Your task to perform on an android device: empty trash in the gmail app Image 0: 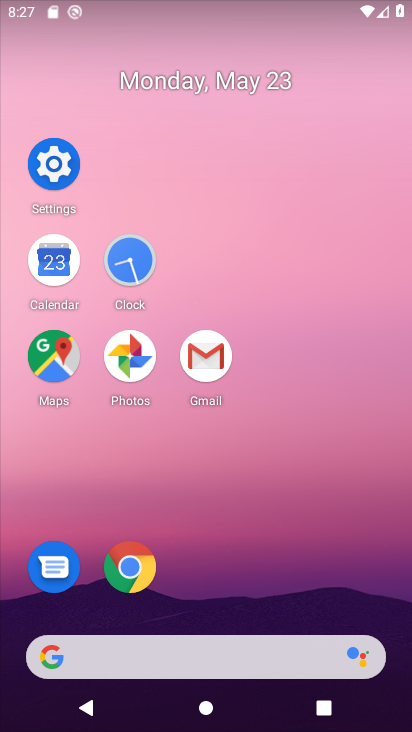
Step 0: click (230, 372)
Your task to perform on an android device: empty trash in the gmail app Image 1: 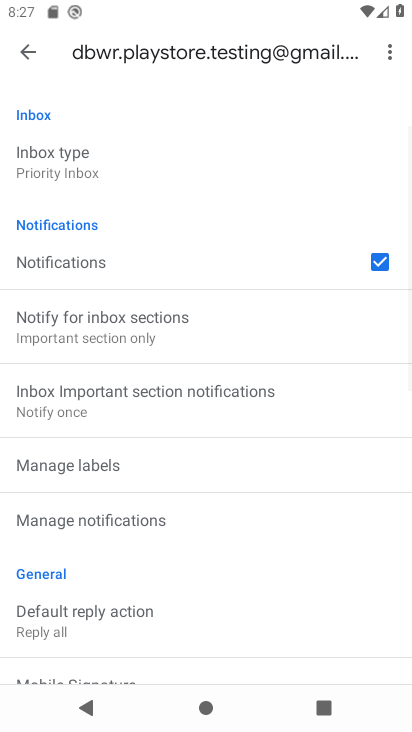
Step 1: drag from (212, 538) to (243, 206)
Your task to perform on an android device: empty trash in the gmail app Image 2: 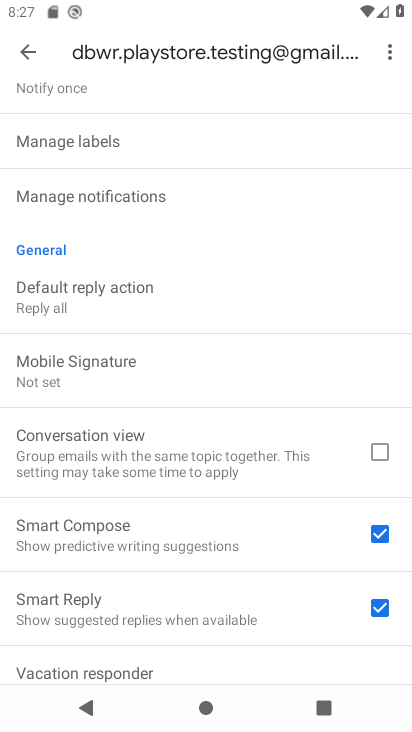
Step 2: drag from (210, 523) to (232, 152)
Your task to perform on an android device: empty trash in the gmail app Image 3: 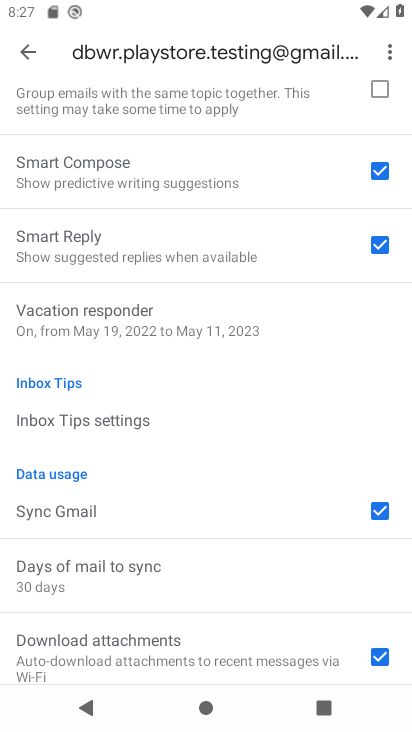
Step 3: drag from (248, 489) to (271, 173)
Your task to perform on an android device: empty trash in the gmail app Image 4: 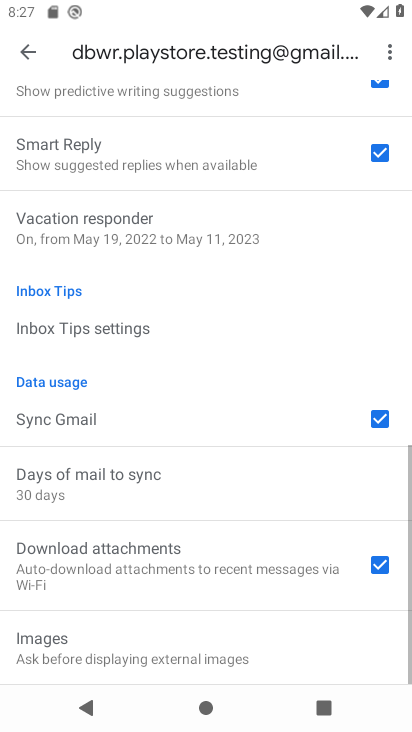
Step 4: click (28, 78)
Your task to perform on an android device: empty trash in the gmail app Image 5: 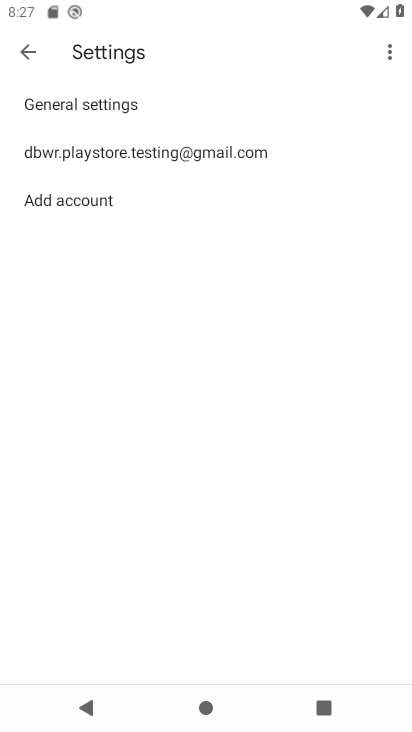
Step 5: click (32, 68)
Your task to perform on an android device: empty trash in the gmail app Image 6: 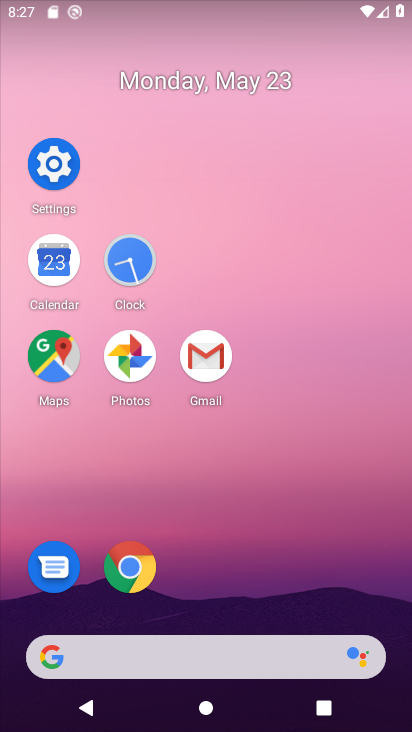
Step 6: click (210, 341)
Your task to perform on an android device: empty trash in the gmail app Image 7: 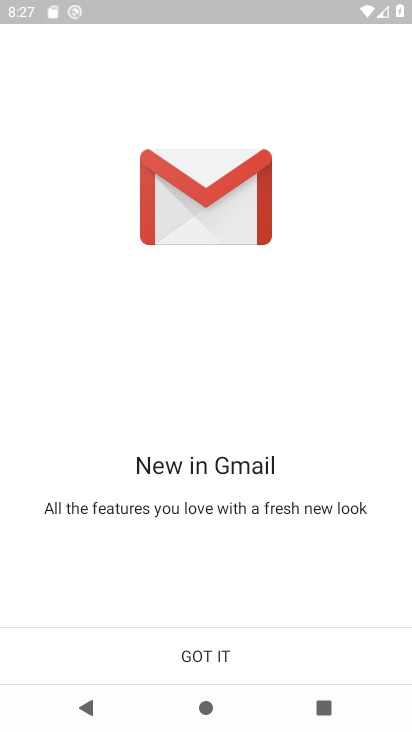
Step 7: click (232, 637)
Your task to perform on an android device: empty trash in the gmail app Image 8: 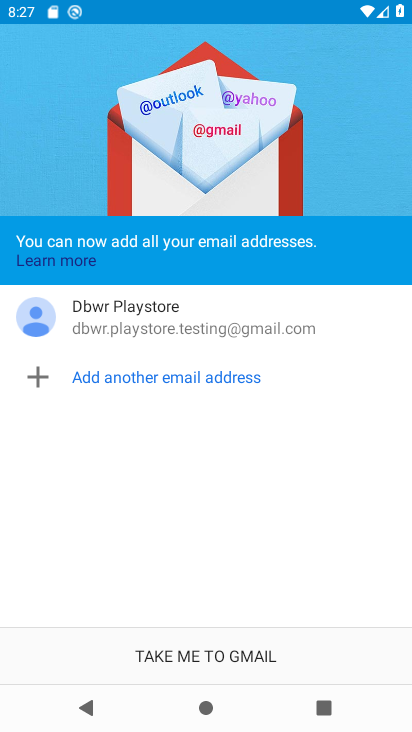
Step 8: click (288, 639)
Your task to perform on an android device: empty trash in the gmail app Image 9: 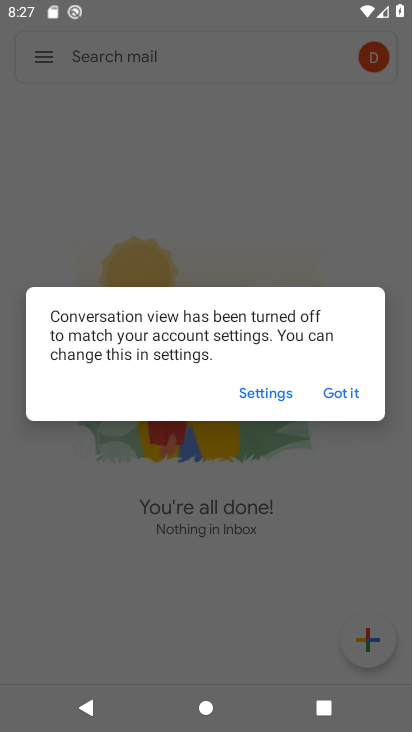
Step 9: click (351, 404)
Your task to perform on an android device: empty trash in the gmail app Image 10: 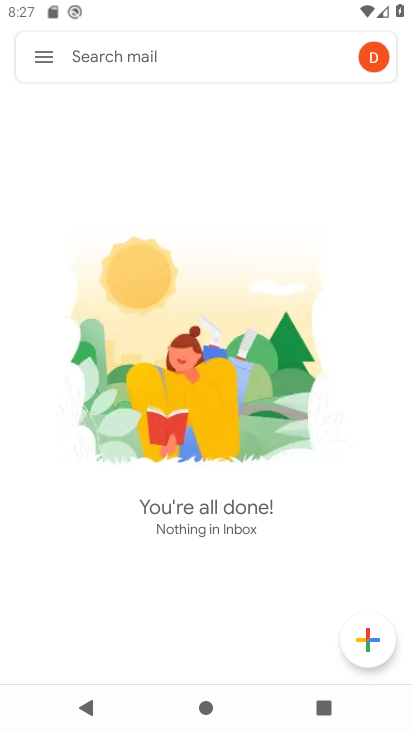
Step 10: click (44, 60)
Your task to perform on an android device: empty trash in the gmail app Image 11: 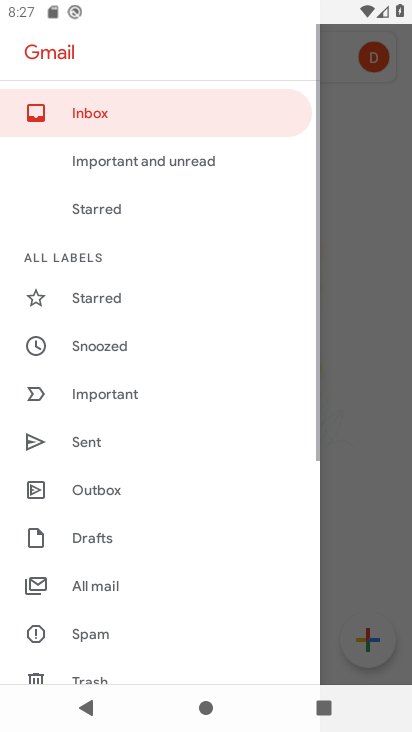
Step 11: drag from (152, 551) to (149, 210)
Your task to perform on an android device: empty trash in the gmail app Image 12: 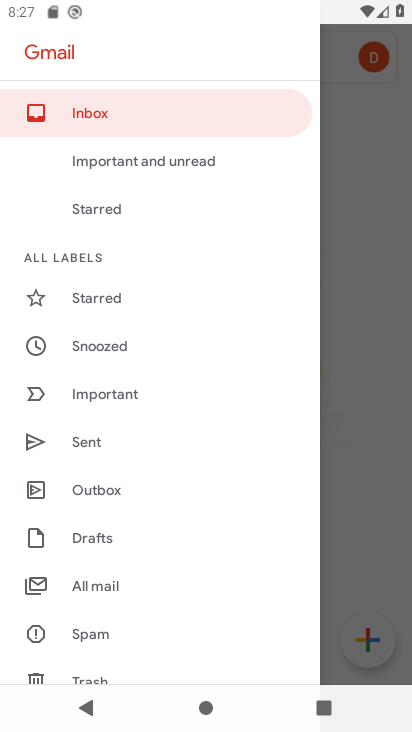
Step 12: drag from (159, 629) to (208, 295)
Your task to perform on an android device: empty trash in the gmail app Image 13: 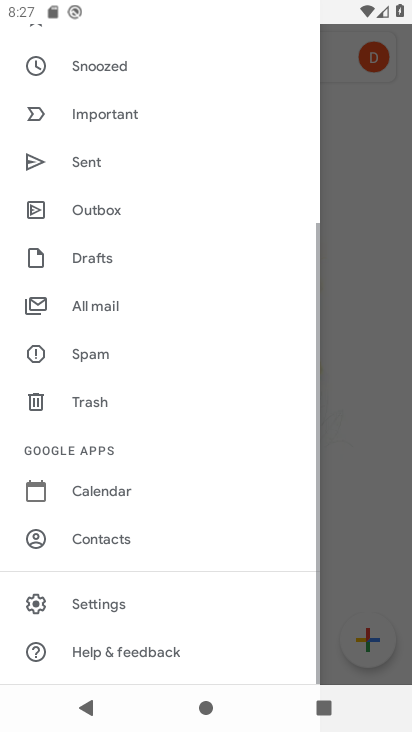
Step 13: click (143, 398)
Your task to perform on an android device: empty trash in the gmail app Image 14: 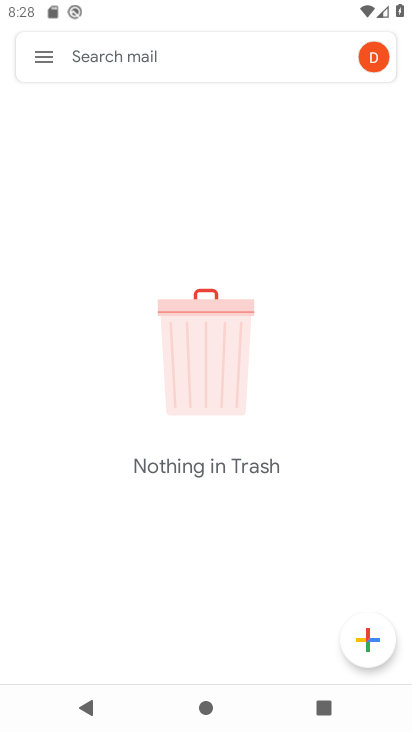
Step 14: task complete